Your task to perform on an android device: turn on improve location accuracy Image 0: 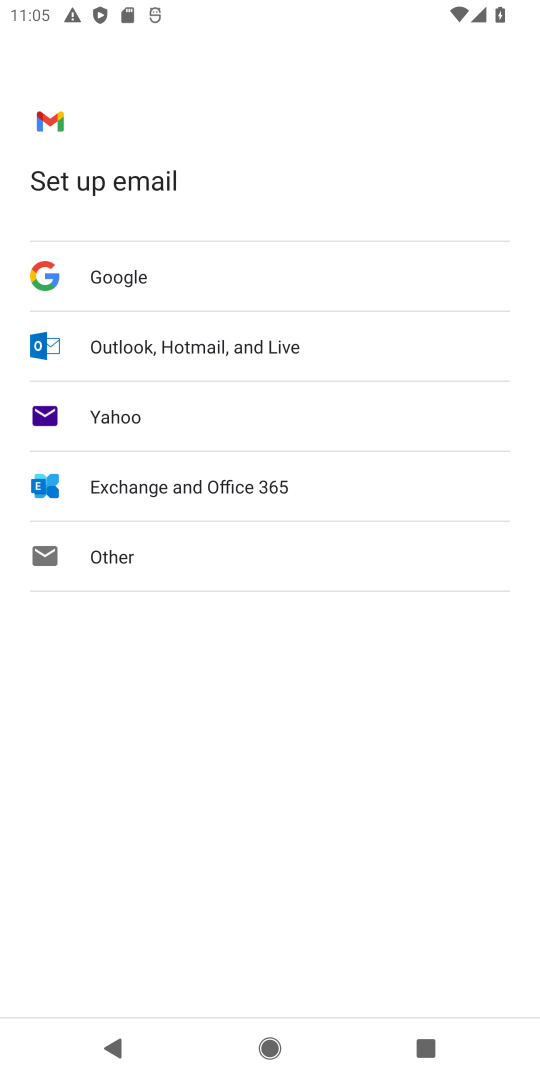
Step 0: press home button
Your task to perform on an android device: turn on improve location accuracy Image 1: 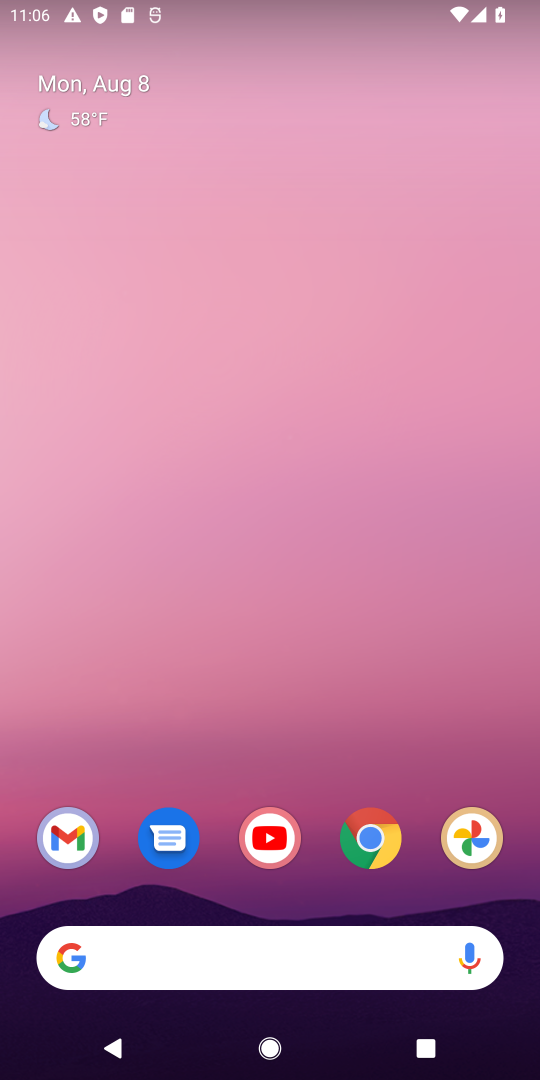
Step 1: drag from (313, 899) to (526, 43)
Your task to perform on an android device: turn on improve location accuracy Image 2: 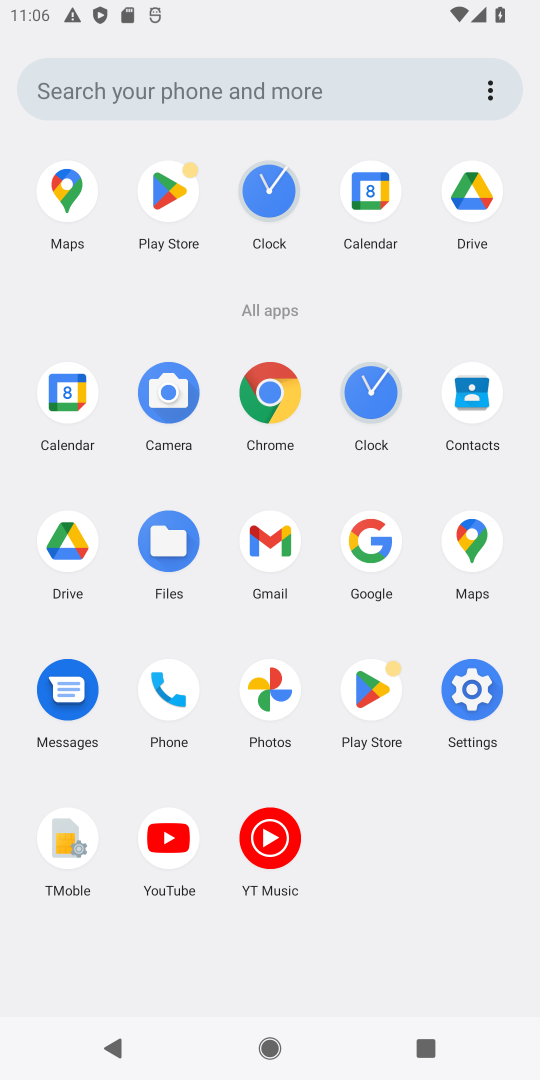
Step 2: click (476, 688)
Your task to perform on an android device: turn on improve location accuracy Image 3: 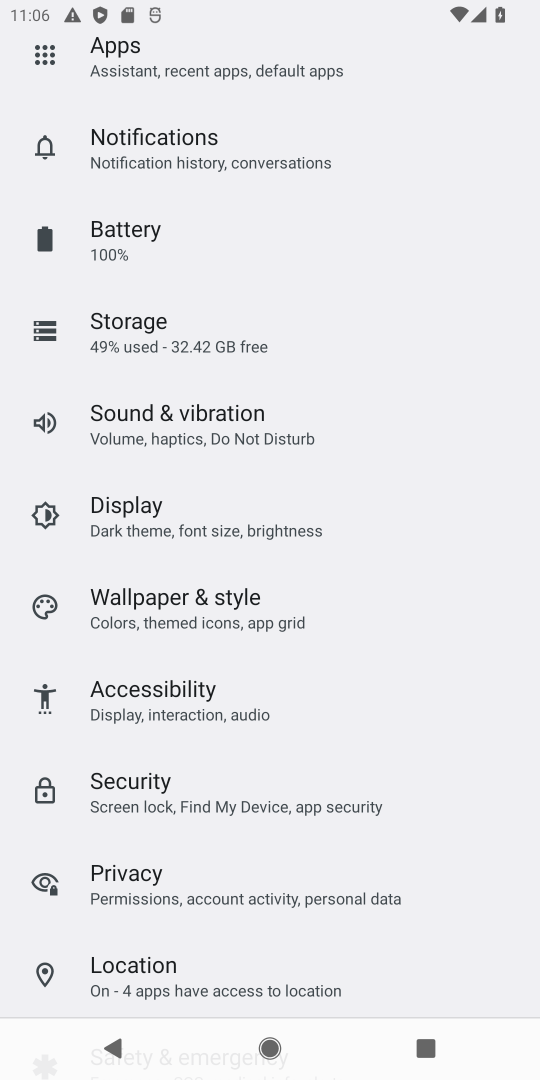
Step 3: click (125, 964)
Your task to perform on an android device: turn on improve location accuracy Image 4: 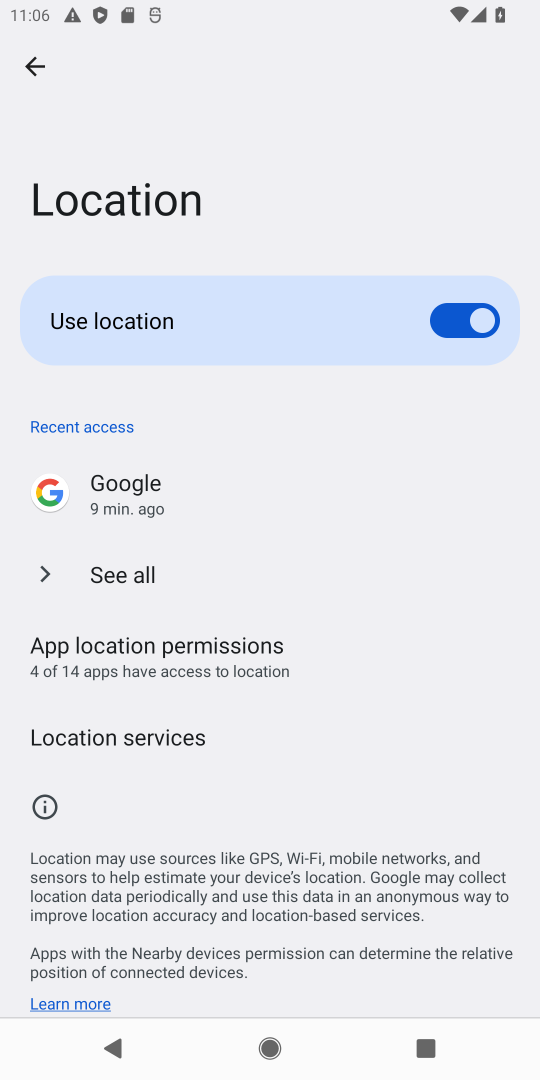
Step 4: click (136, 744)
Your task to perform on an android device: turn on improve location accuracy Image 5: 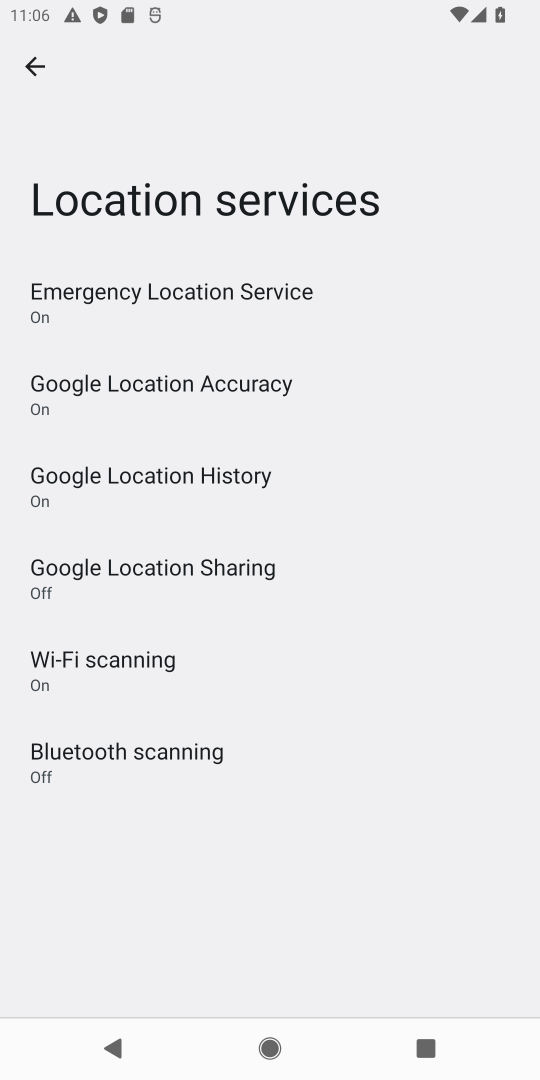
Step 5: click (190, 391)
Your task to perform on an android device: turn on improve location accuracy Image 6: 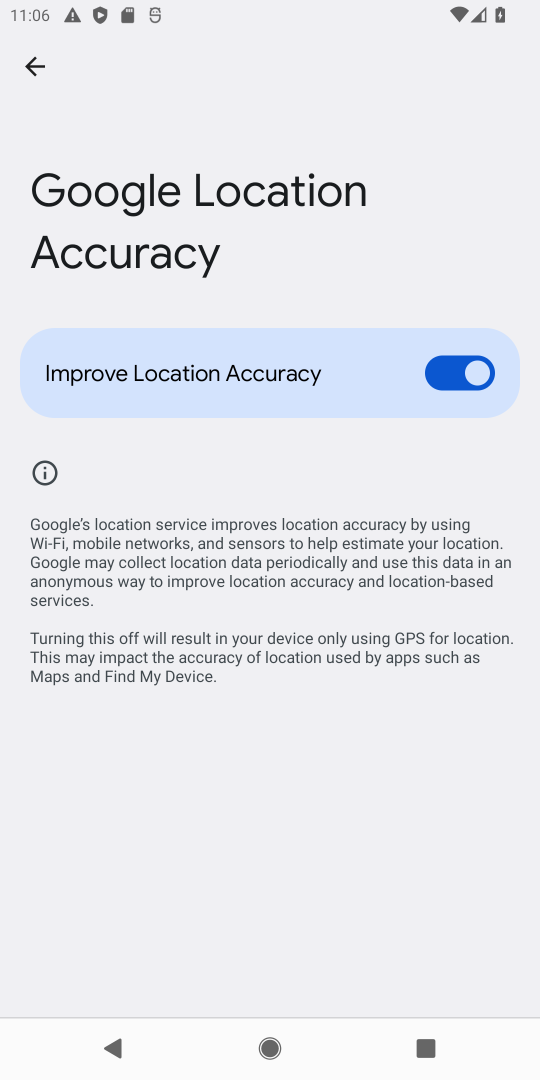
Step 6: task complete